Your task to perform on an android device: empty trash in the gmail app Image 0: 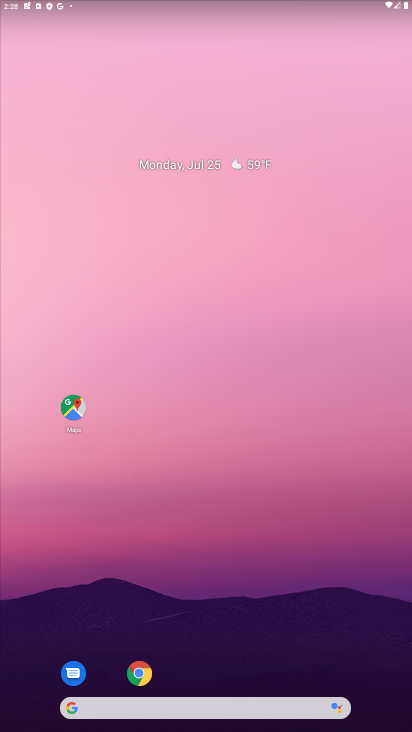
Step 0: drag from (189, 674) to (68, 116)
Your task to perform on an android device: empty trash in the gmail app Image 1: 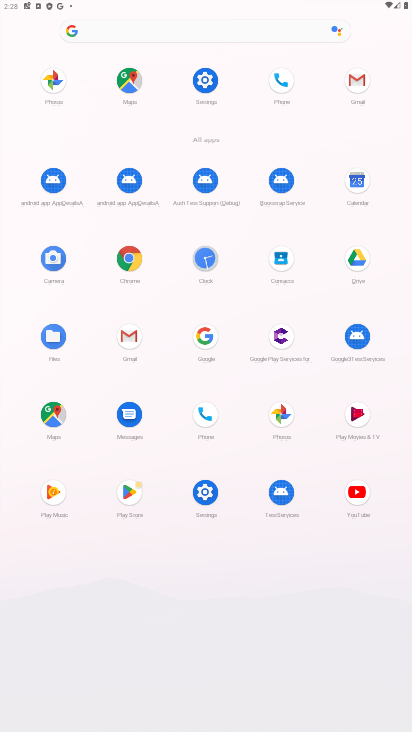
Step 1: click (356, 90)
Your task to perform on an android device: empty trash in the gmail app Image 2: 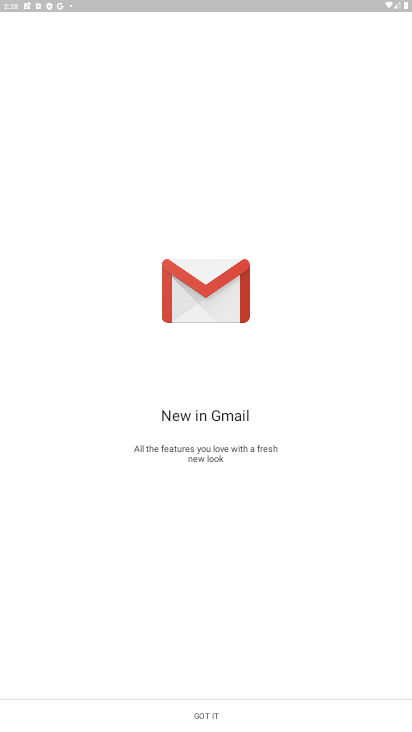
Step 2: click (210, 710)
Your task to perform on an android device: empty trash in the gmail app Image 3: 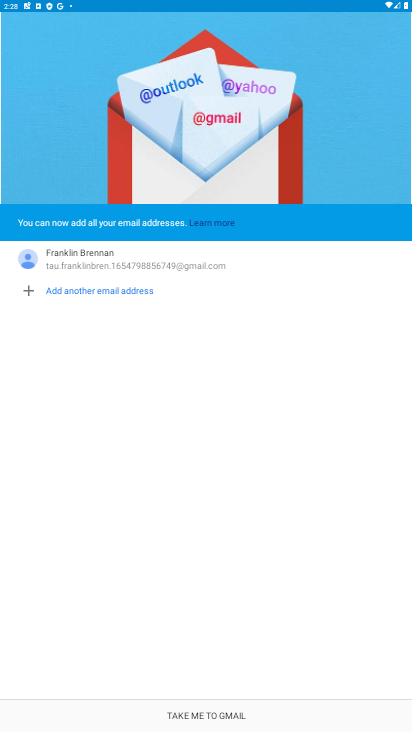
Step 3: click (210, 710)
Your task to perform on an android device: empty trash in the gmail app Image 4: 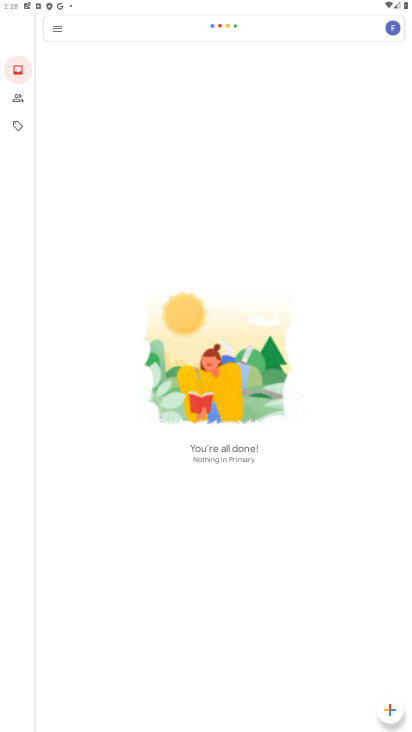
Step 4: click (54, 25)
Your task to perform on an android device: empty trash in the gmail app Image 5: 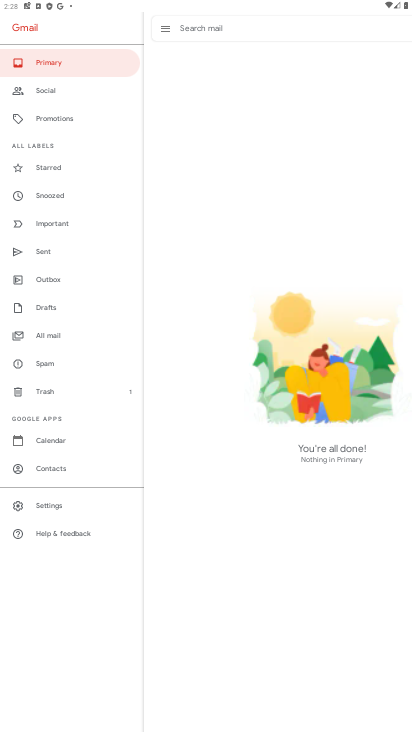
Step 5: click (38, 392)
Your task to perform on an android device: empty trash in the gmail app Image 6: 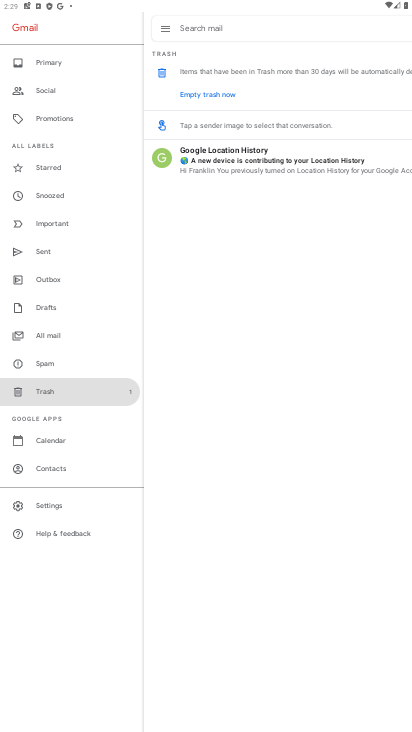
Step 6: click (212, 91)
Your task to perform on an android device: empty trash in the gmail app Image 7: 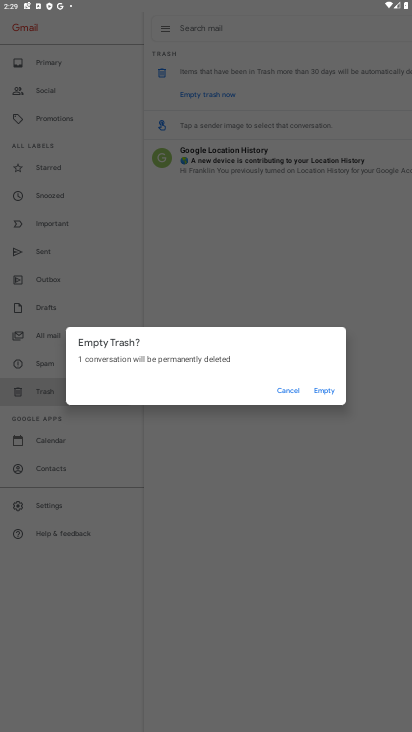
Step 7: click (321, 391)
Your task to perform on an android device: empty trash in the gmail app Image 8: 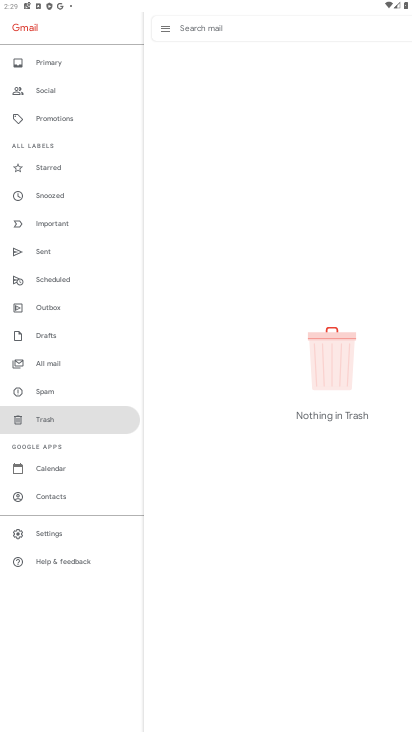
Step 8: task complete